Your task to perform on an android device: Go to Google maps Image 0: 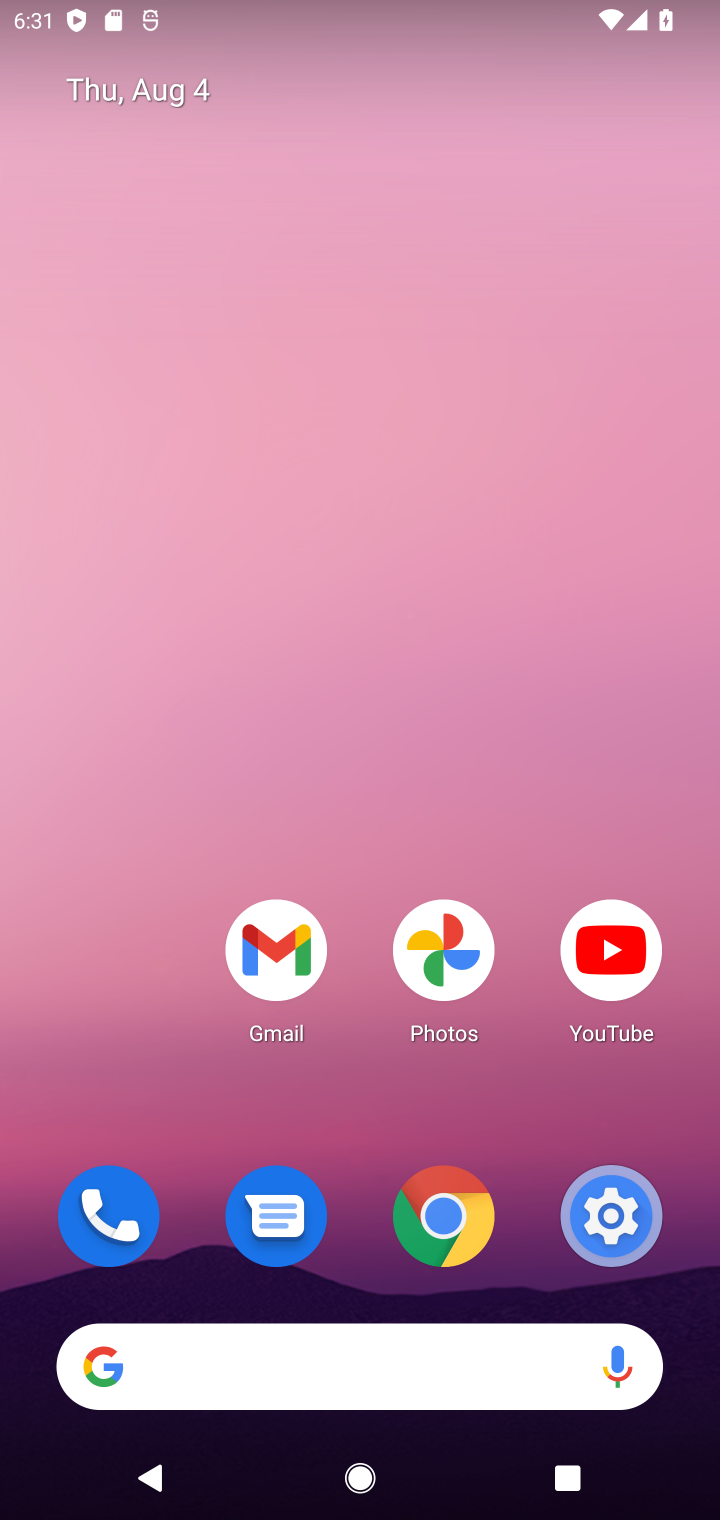
Step 0: drag from (393, 739) to (414, 217)
Your task to perform on an android device: Go to Google maps Image 1: 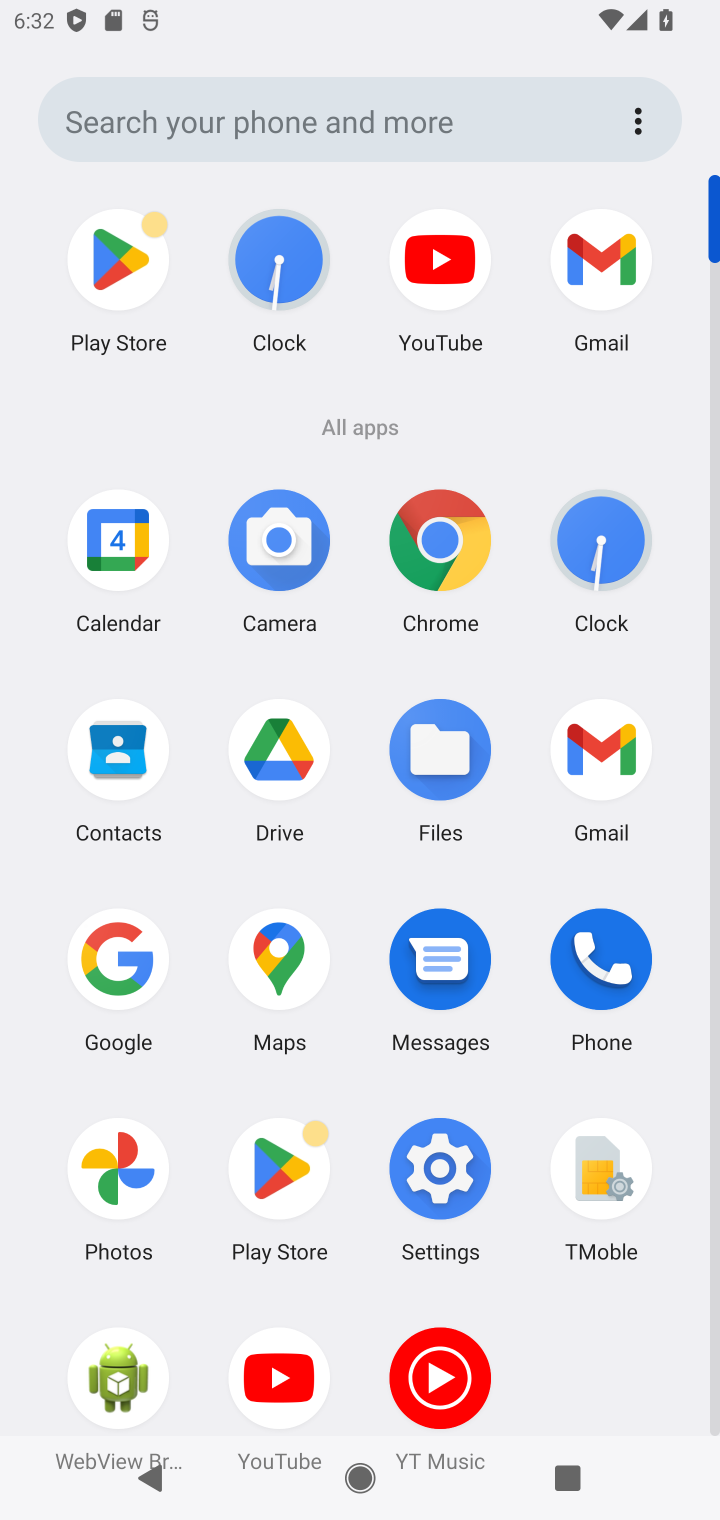
Step 1: click (248, 971)
Your task to perform on an android device: Go to Google maps Image 2: 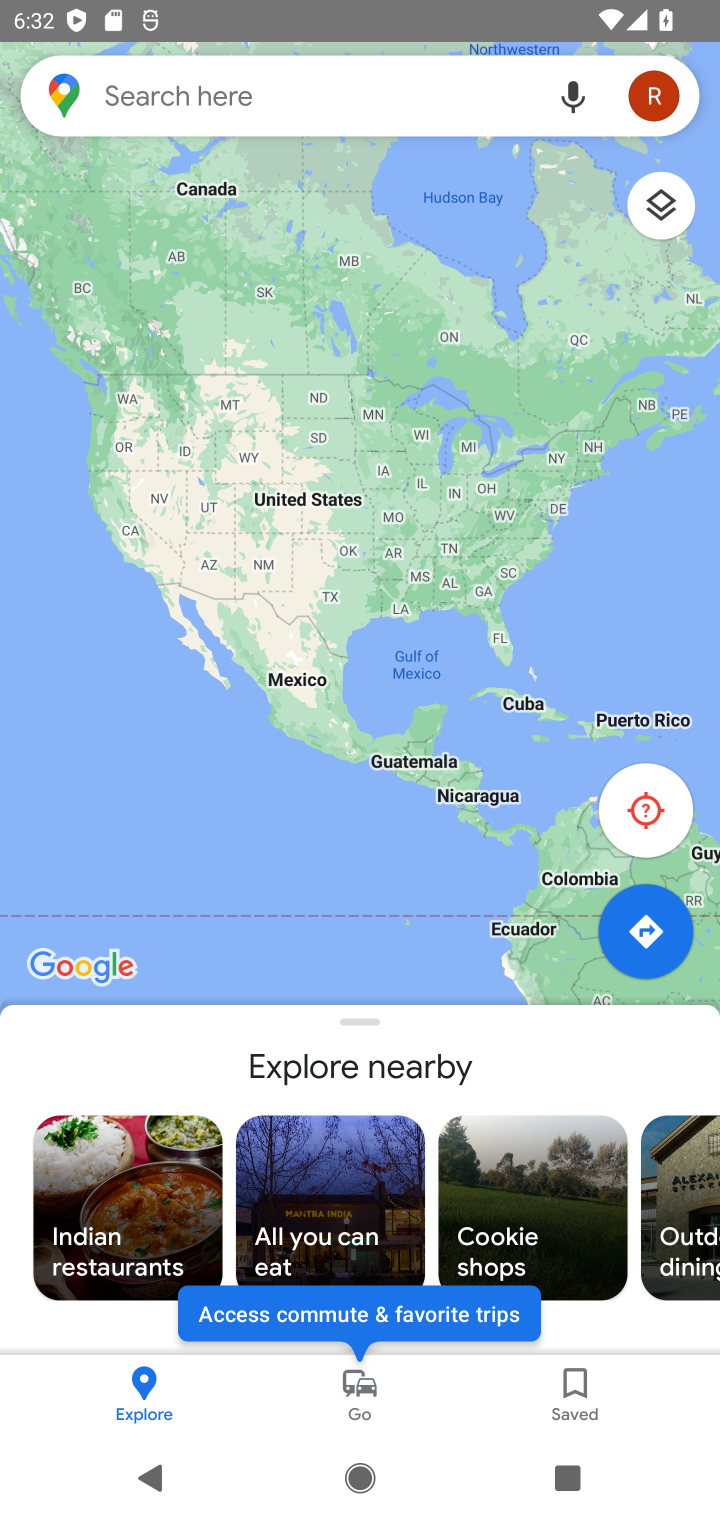
Step 2: task complete